Your task to perform on an android device: turn on translation in the chrome app Image 0: 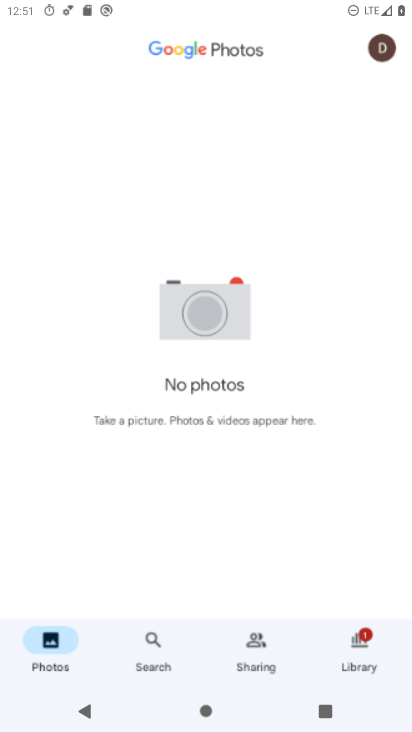
Step 0: drag from (201, 618) to (255, 176)
Your task to perform on an android device: turn on translation in the chrome app Image 1: 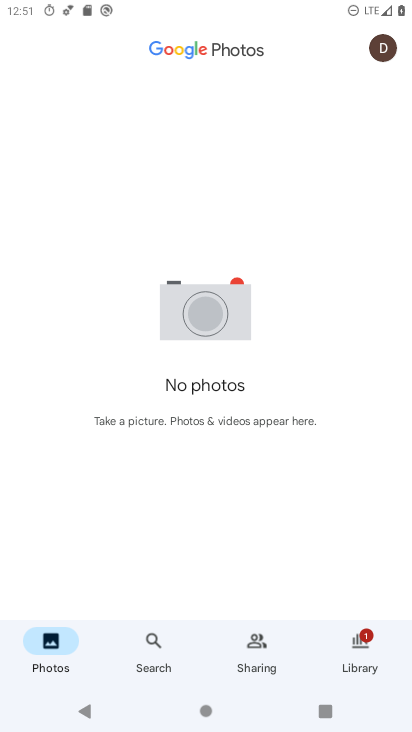
Step 1: press home button
Your task to perform on an android device: turn on translation in the chrome app Image 2: 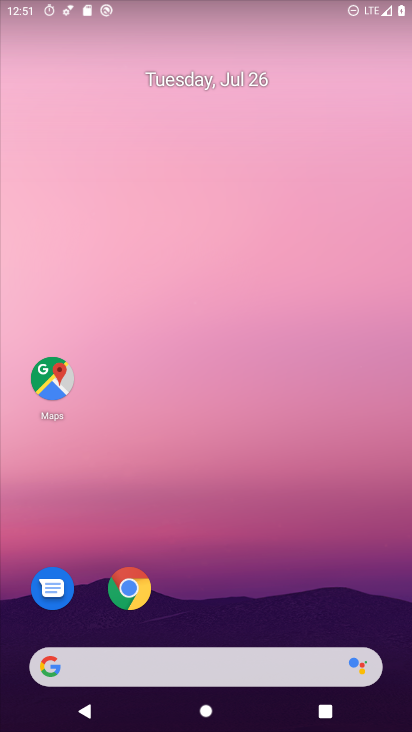
Step 2: drag from (237, 587) to (263, 178)
Your task to perform on an android device: turn on translation in the chrome app Image 3: 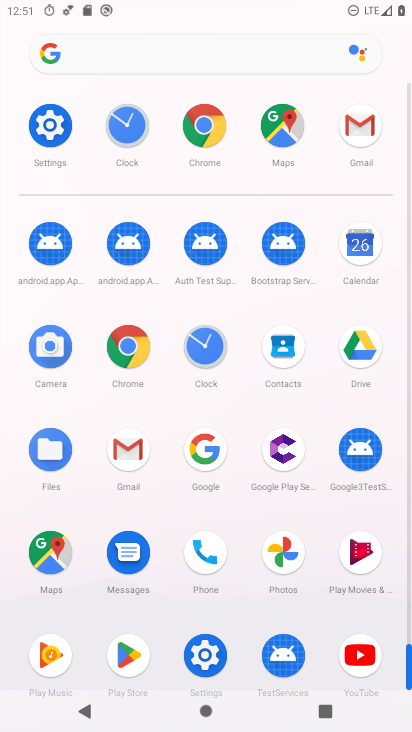
Step 3: click (209, 671)
Your task to perform on an android device: turn on translation in the chrome app Image 4: 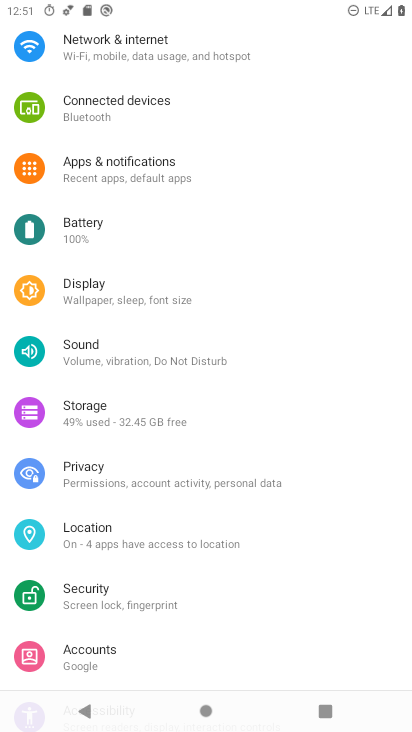
Step 4: press home button
Your task to perform on an android device: turn on translation in the chrome app Image 5: 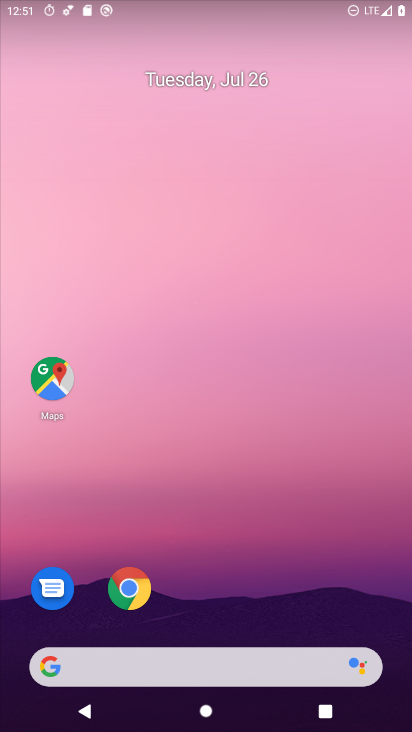
Step 5: drag from (219, 573) to (202, 120)
Your task to perform on an android device: turn on translation in the chrome app Image 6: 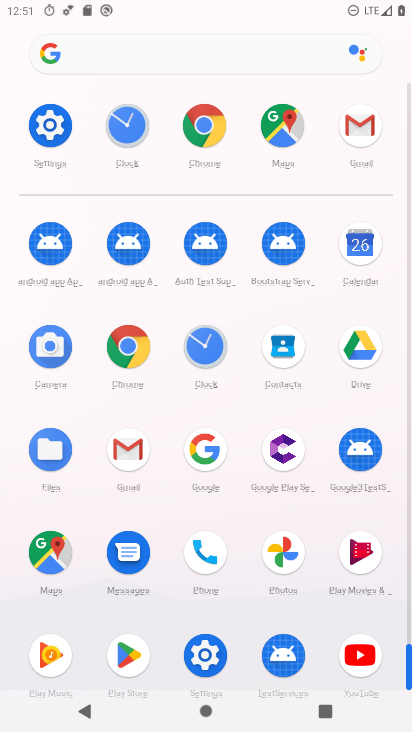
Step 6: click (125, 365)
Your task to perform on an android device: turn on translation in the chrome app Image 7: 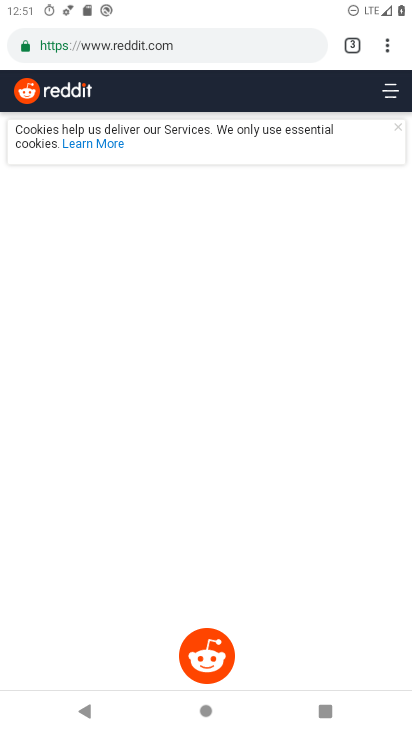
Step 7: click (396, 43)
Your task to perform on an android device: turn on translation in the chrome app Image 8: 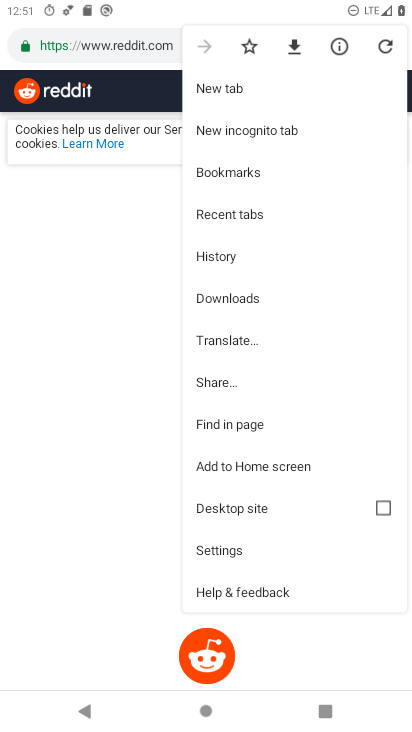
Step 8: click (235, 555)
Your task to perform on an android device: turn on translation in the chrome app Image 9: 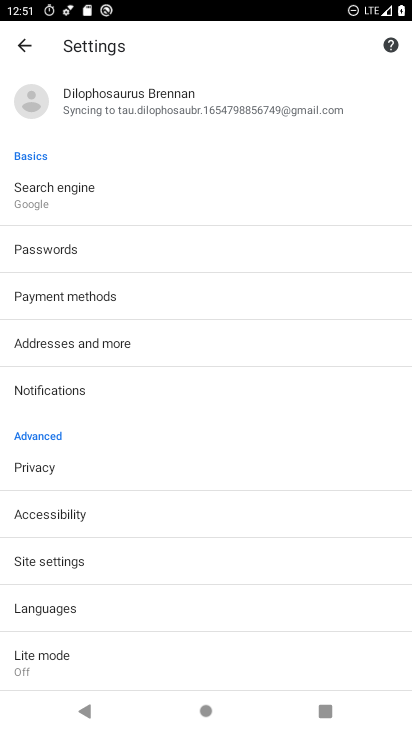
Step 9: drag from (119, 621) to (162, 367)
Your task to perform on an android device: turn on translation in the chrome app Image 10: 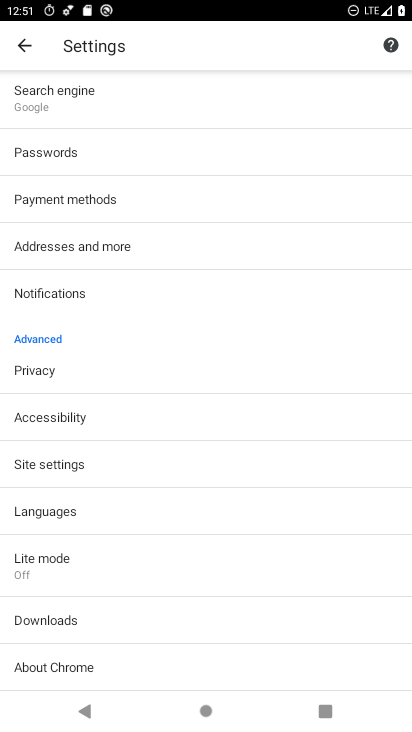
Step 10: click (98, 523)
Your task to perform on an android device: turn on translation in the chrome app Image 11: 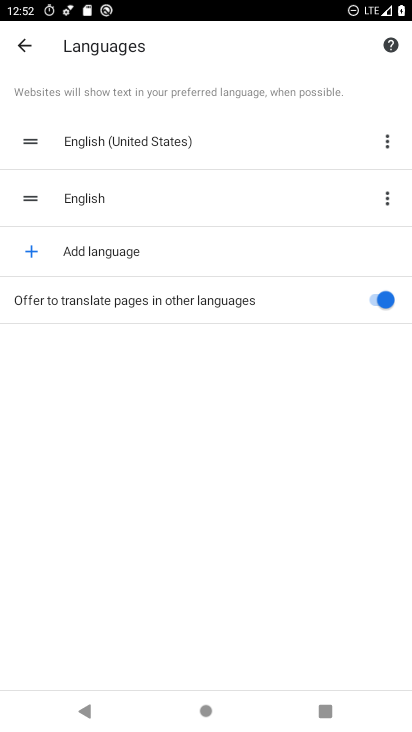
Step 11: task complete